Your task to perform on an android device: star an email in the gmail app Image 0: 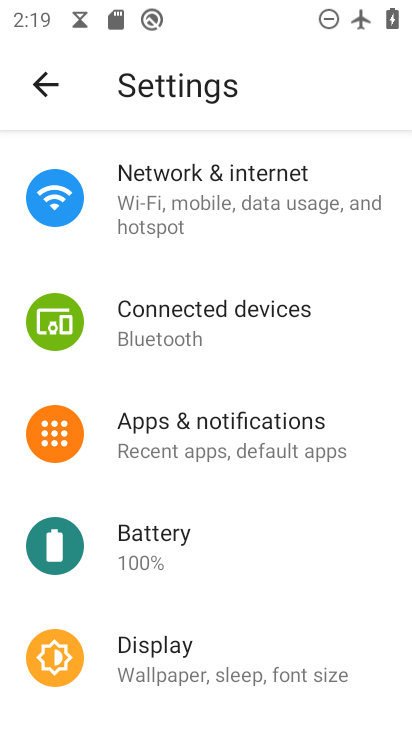
Step 0: press home button
Your task to perform on an android device: star an email in the gmail app Image 1: 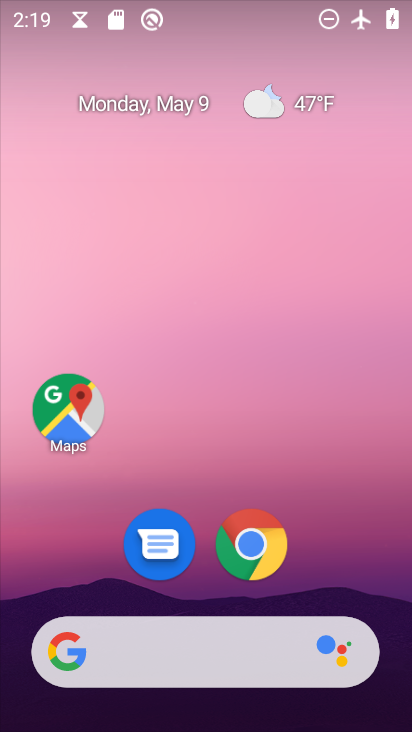
Step 1: drag from (388, 547) to (385, 129)
Your task to perform on an android device: star an email in the gmail app Image 2: 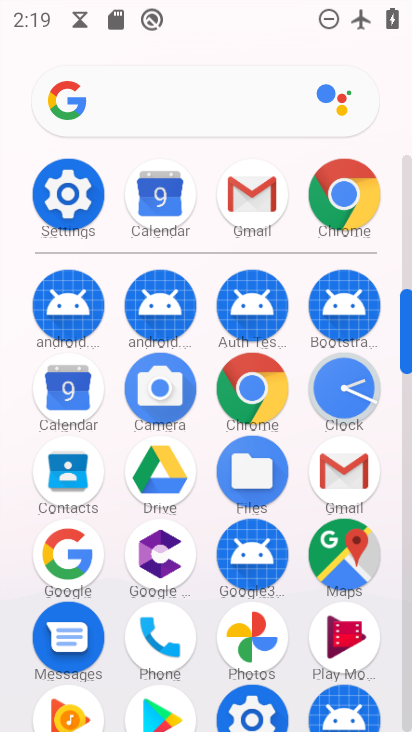
Step 2: click (277, 192)
Your task to perform on an android device: star an email in the gmail app Image 3: 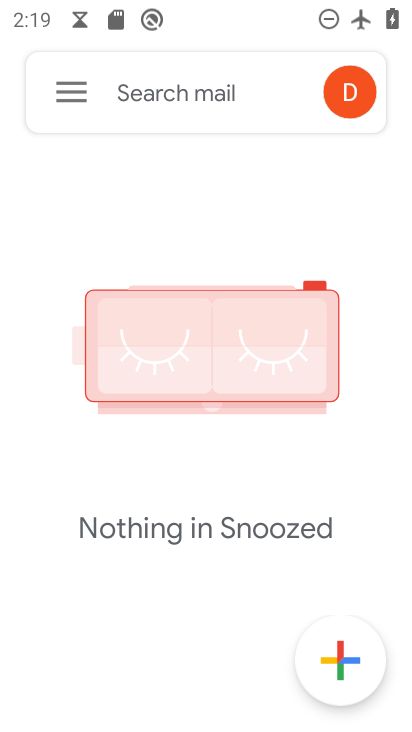
Step 3: click (76, 91)
Your task to perform on an android device: star an email in the gmail app Image 4: 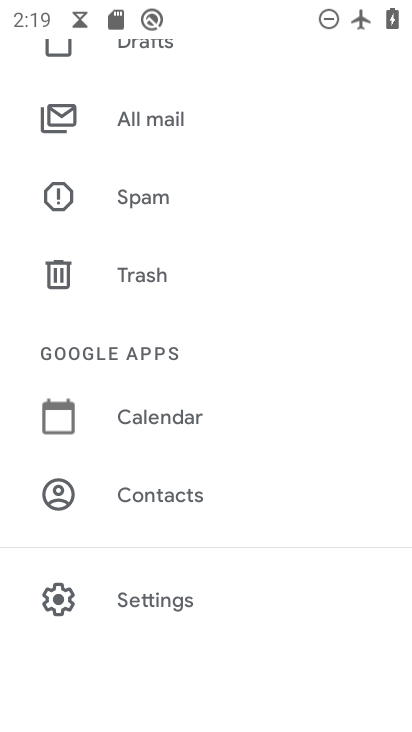
Step 4: drag from (148, 201) to (145, 530)
Your task to perform on an android device: star an email in the gmail app Image 5: 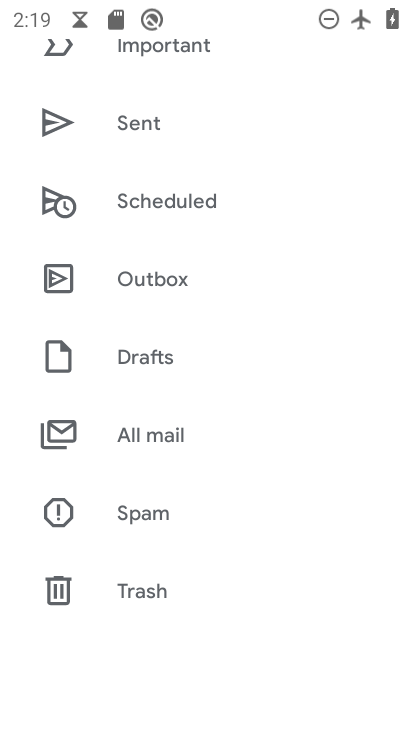
Step 5: drag from (236, 160) to (245, 506)
Your task to perform on an android device: star an email in the gmail app Image 6: 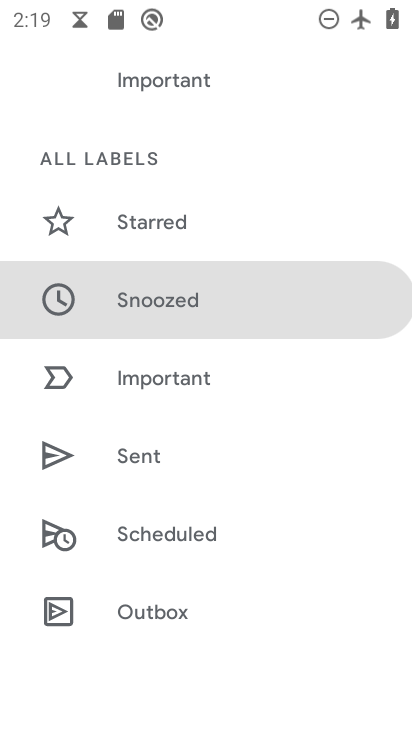
Step 6: click (150, 223)
Your task to perform on an android device: star an email in the gmail app Image 7: 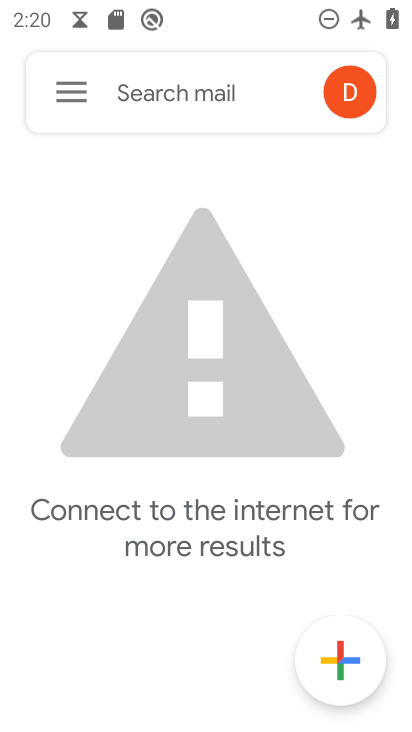
Step 7: task complete